Your task to perform on an android device: Empty the shopping cart on newegg. Image 0: 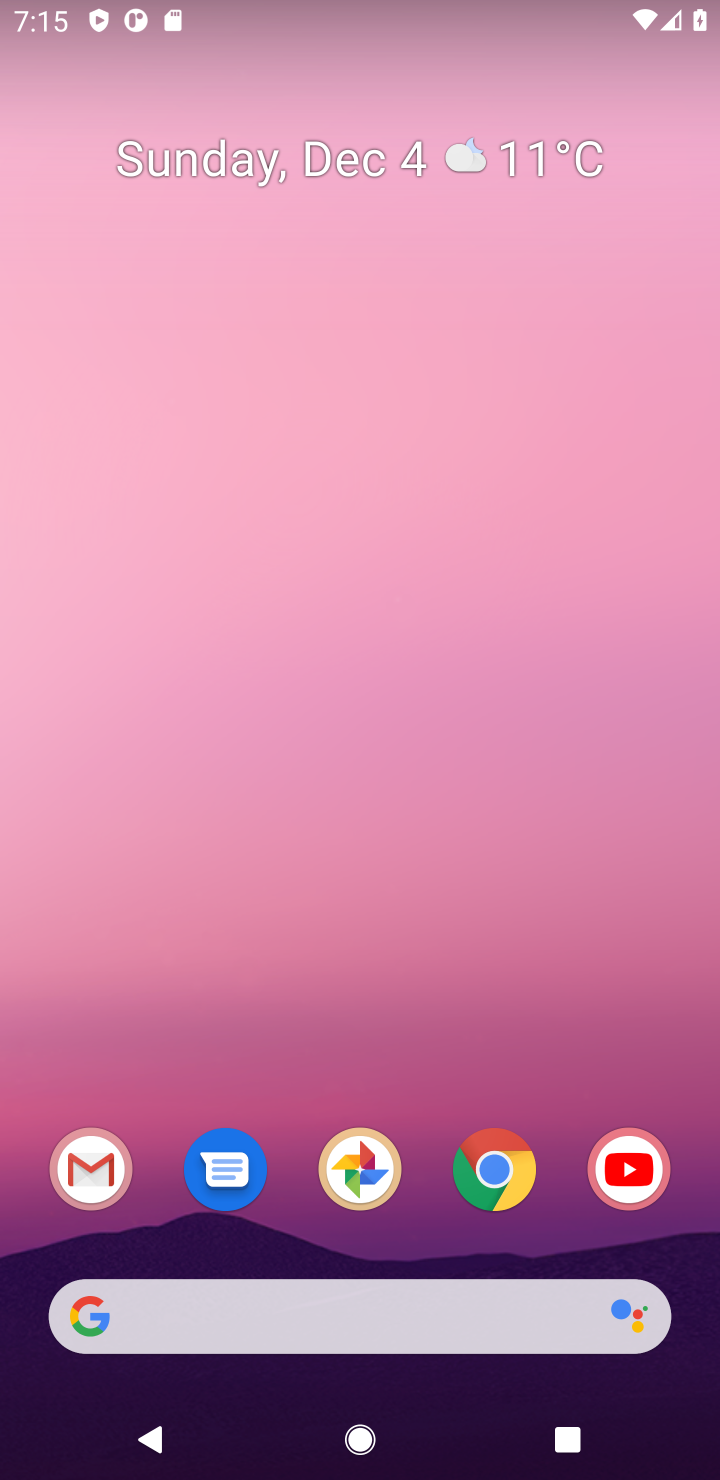
Step 0: drag from (482, 1387) to (661, 90)
Your task to perform on an android device: Empty the shopping cart on newegg. Image 1: 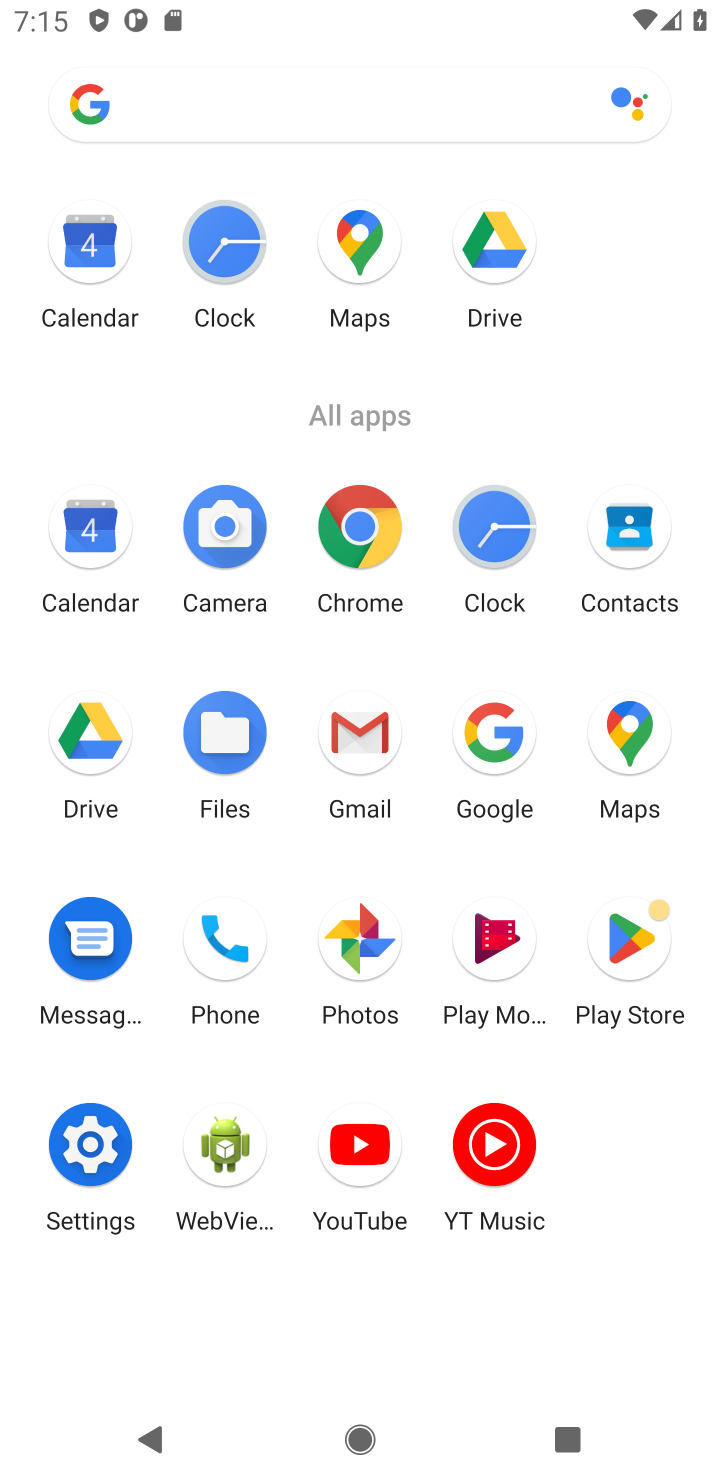
Step 1: click (371, 540)
Your task to perform on an android device: Empty the shopping cart on newegg. Image 2: 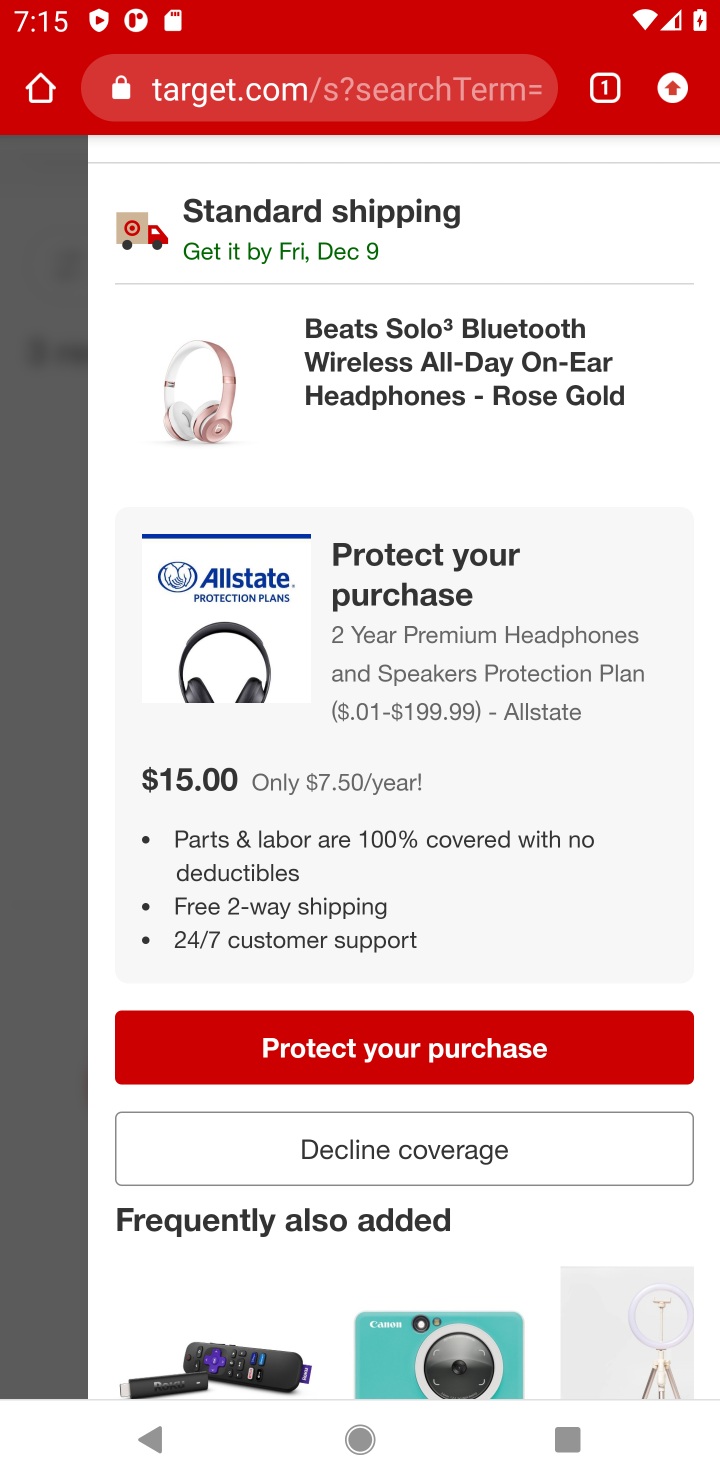
Step 2: click (368, 82)
Your task to perform on an android device: Empty the shopping cart on newegg. Image 3: 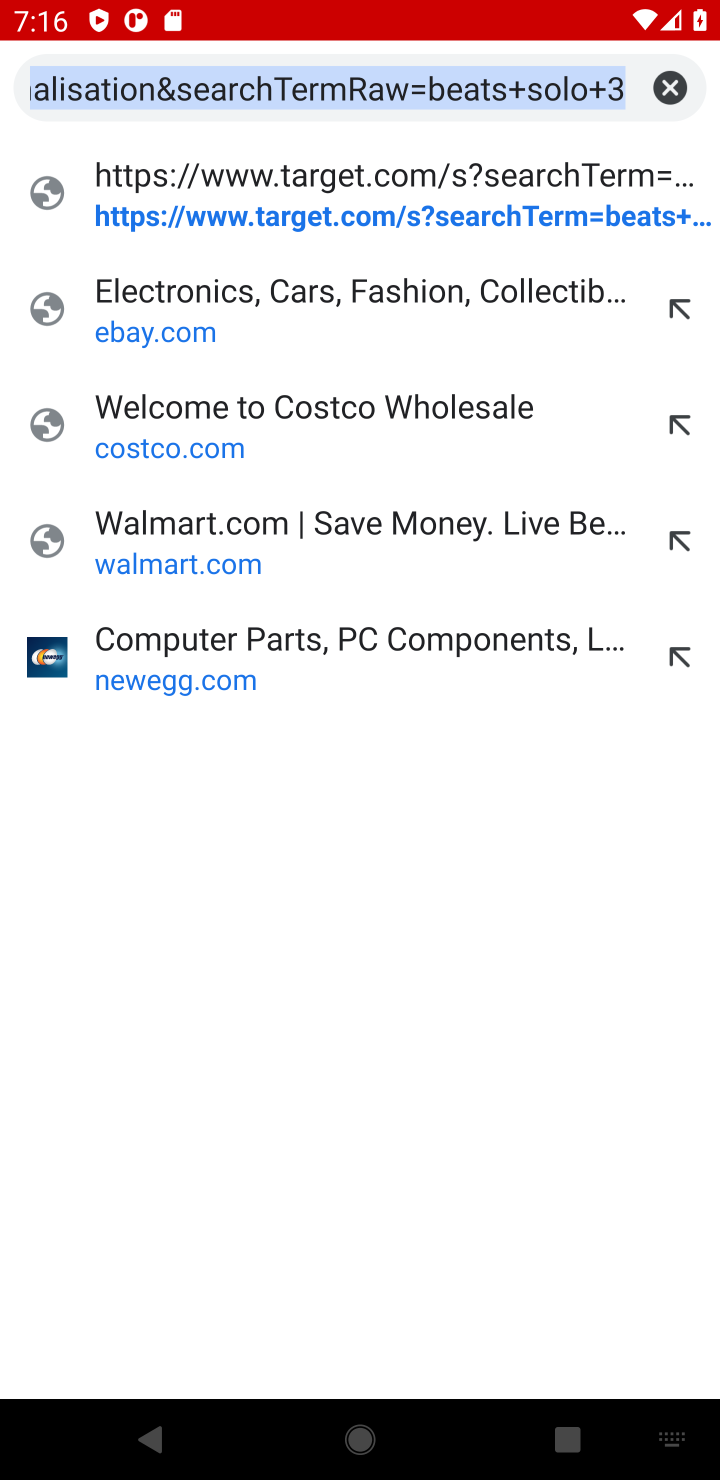
Step 3: click (667, 85)
Your task to perform on an android device: Empty the shopping cart on newegg. Image 4: 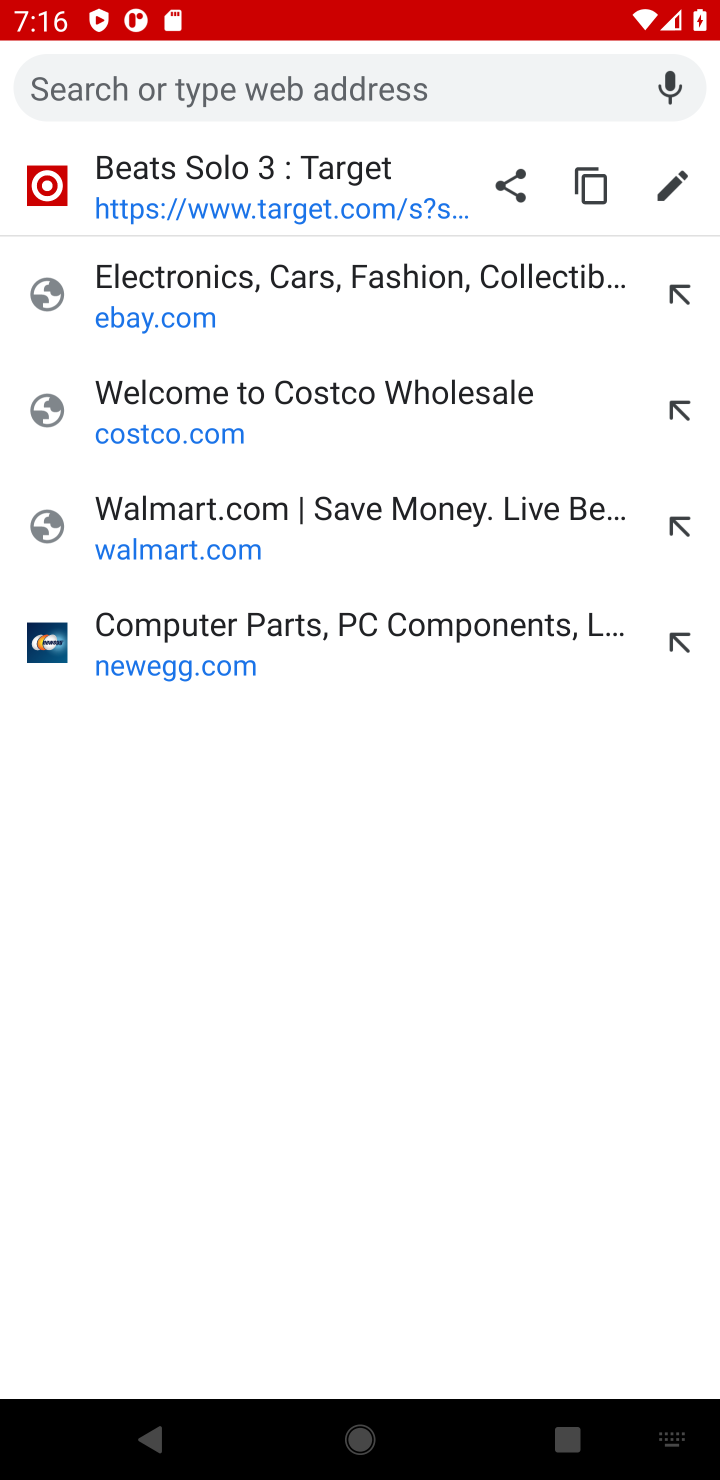
Step 4: type " newegg"
Your task to perform on an android device: Empty the shopping cart on newegg. Image 5: 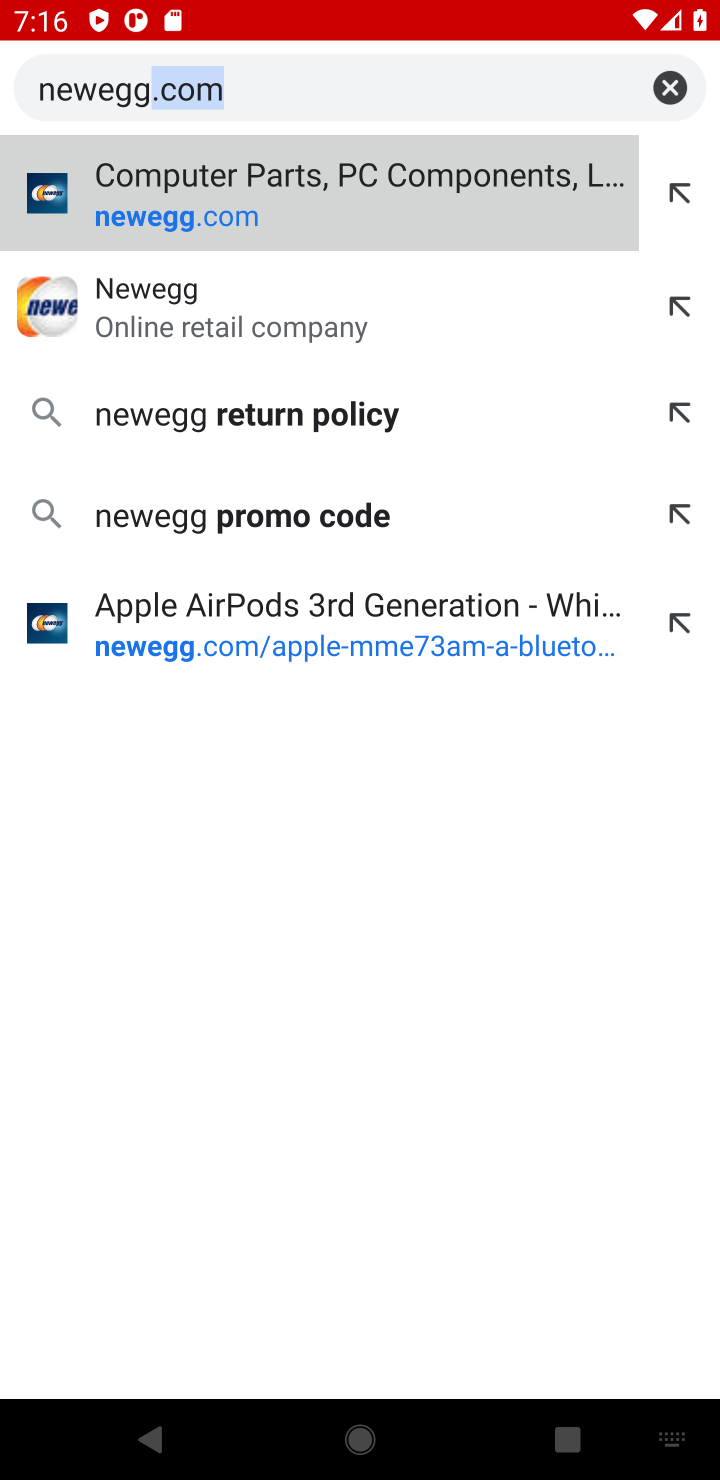
Step 5: type ""
Your task to perform on an android device: Empty the shopping cart on newegg. Image 6: 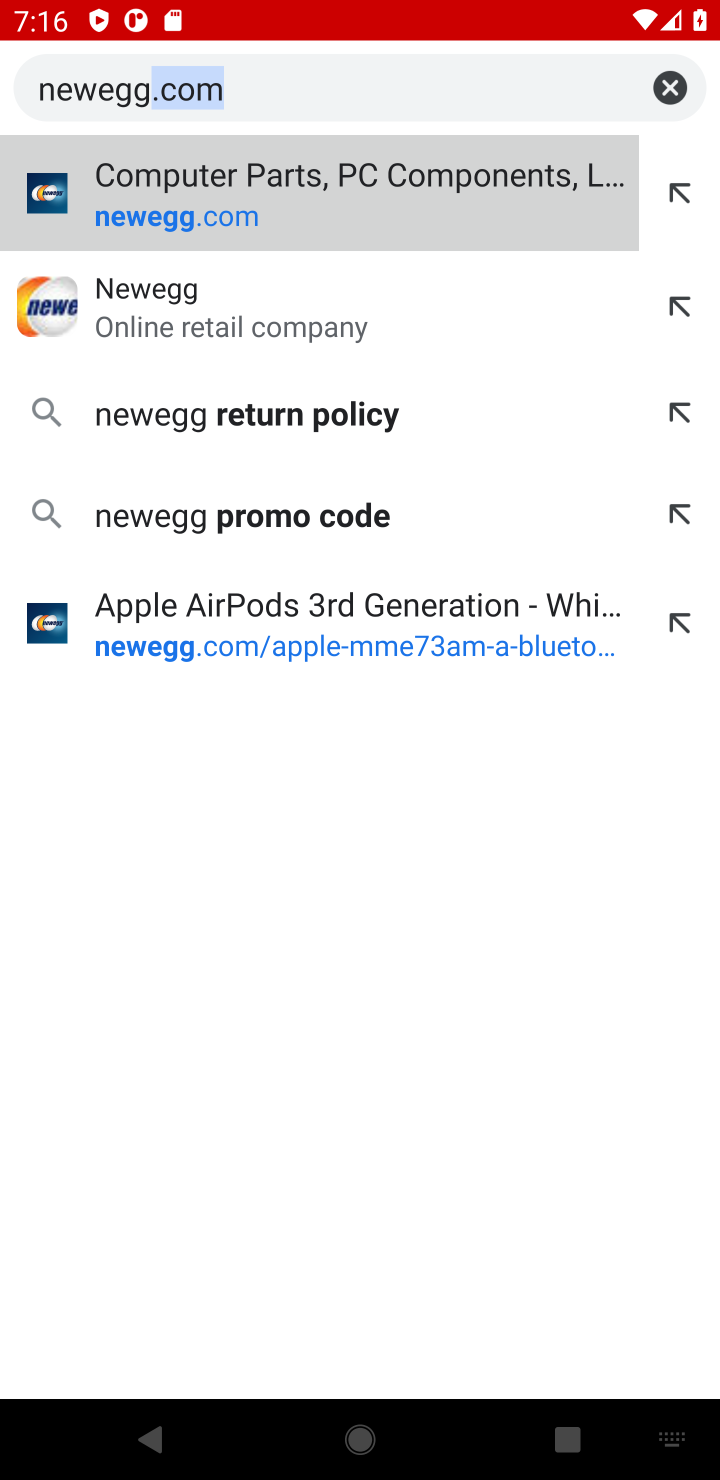
Step 6: click (207, 217)
Your task to perform on an android device: Empty the shopping cart on newegg. Image 7: 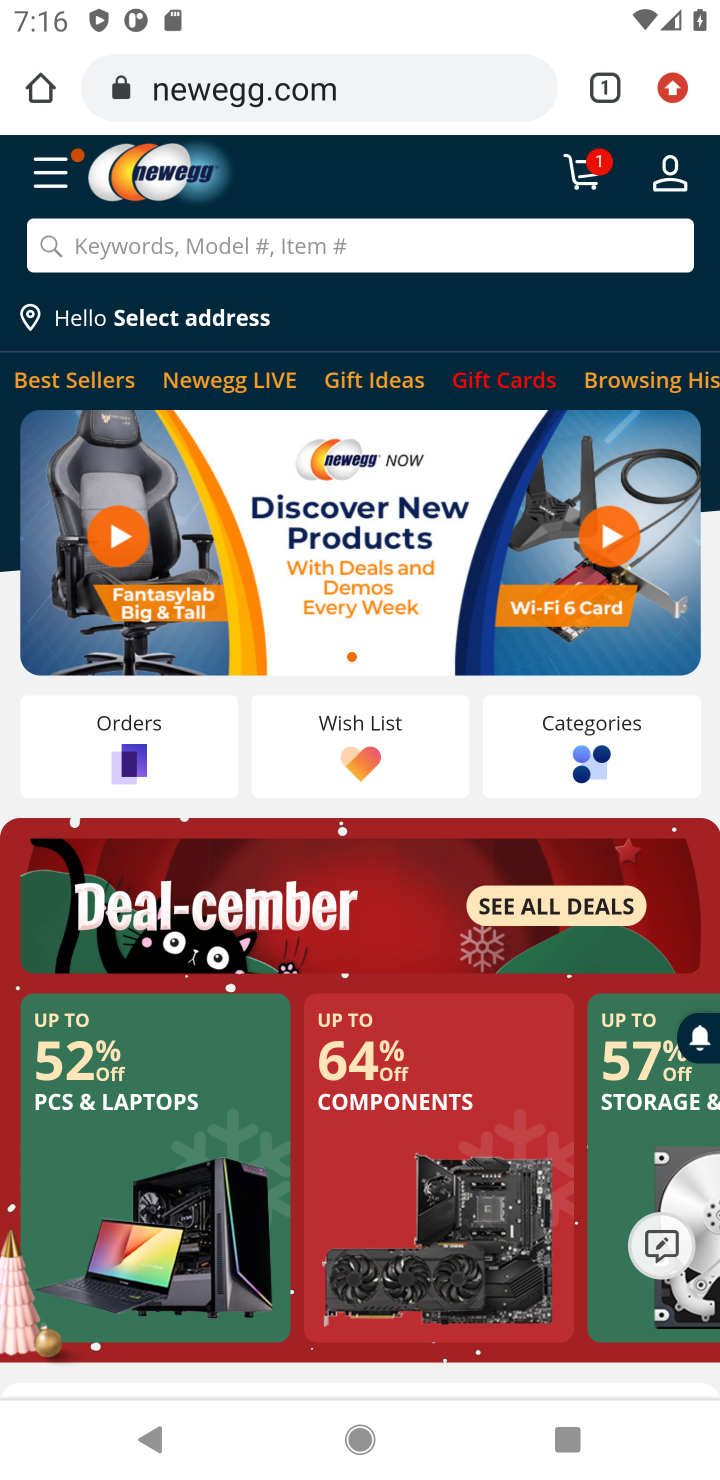
Step 7: click (584, 172)
Your task to perform on an android device: Empty the shopping cart on newegg. Image 8: 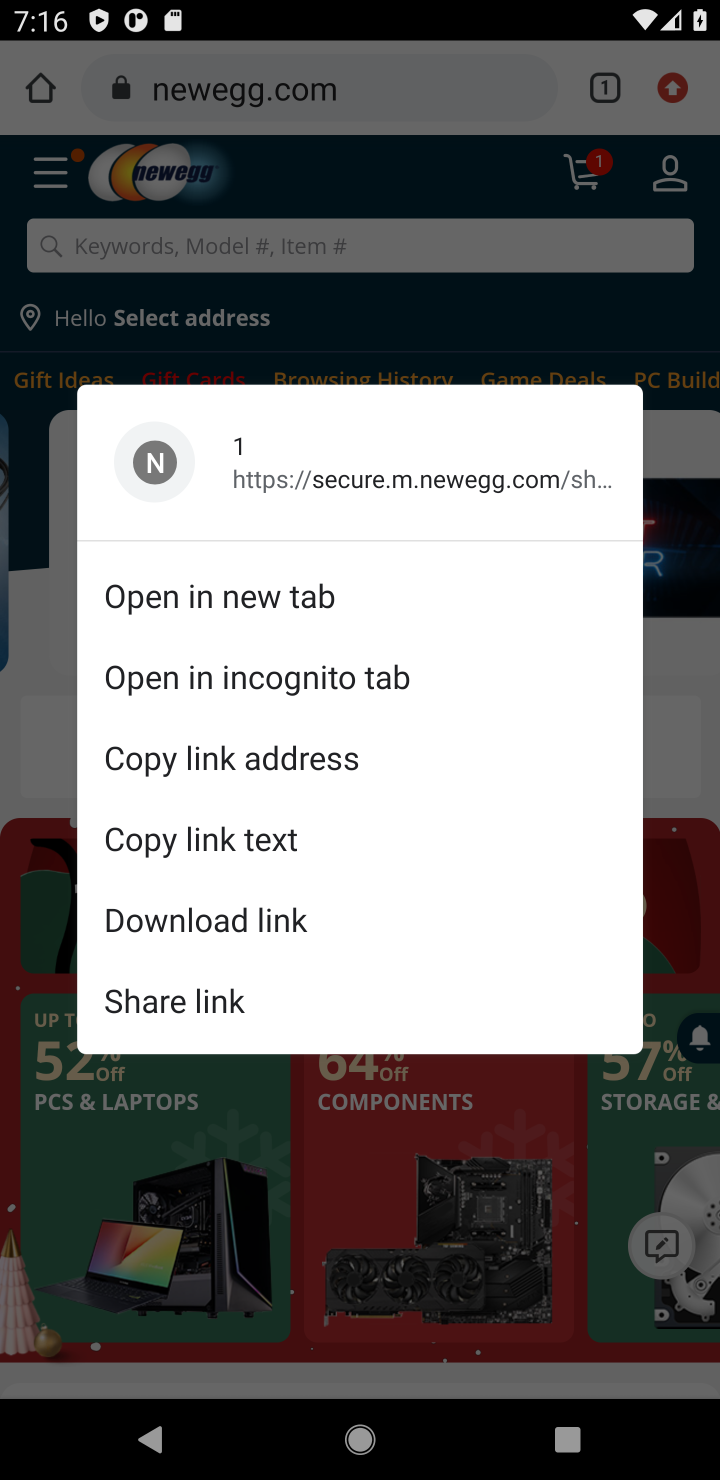
Step 8: click (594, 167)
Your task to perform on an android device: Empty the shopping cart on newegg. Image 9: 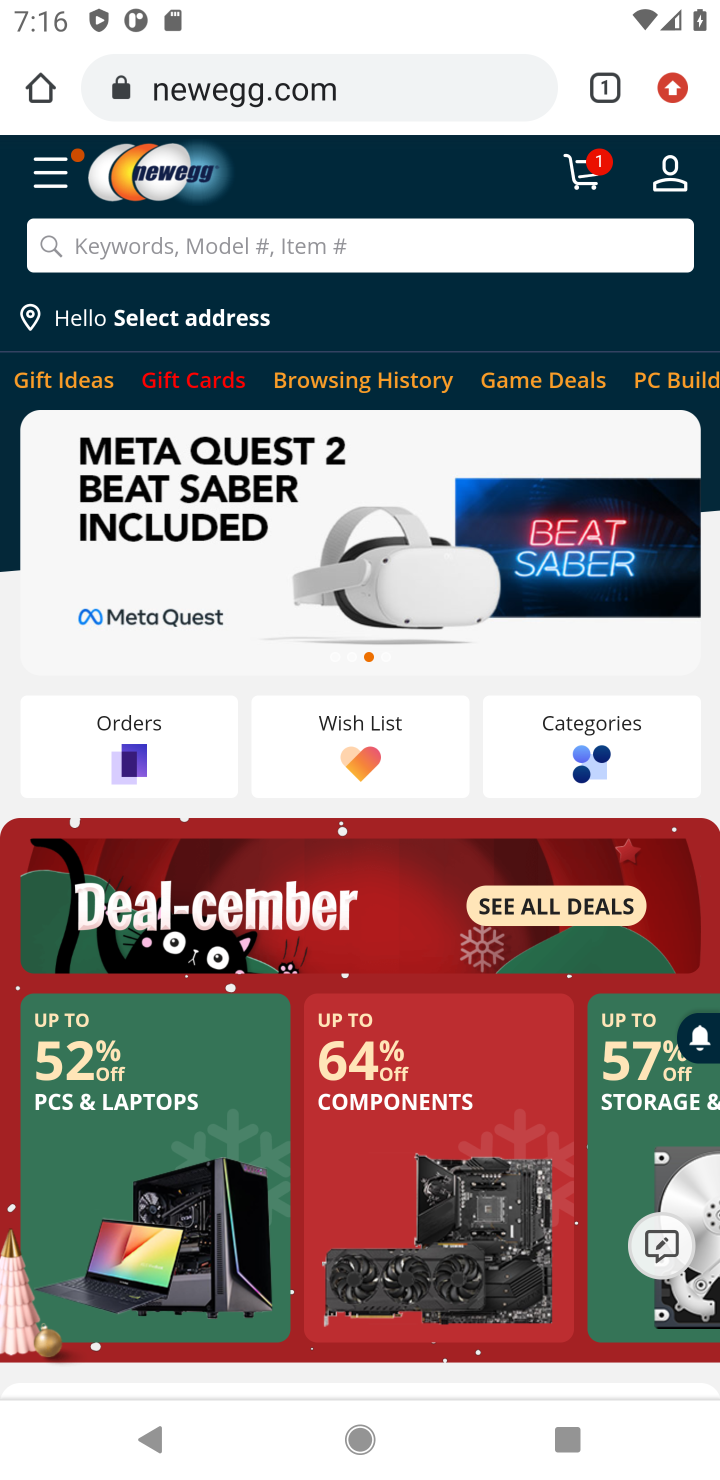
Step 9: click (594, 167)
Your task to perform on an android device: Empty the shopping cart on newegg. Image 10: 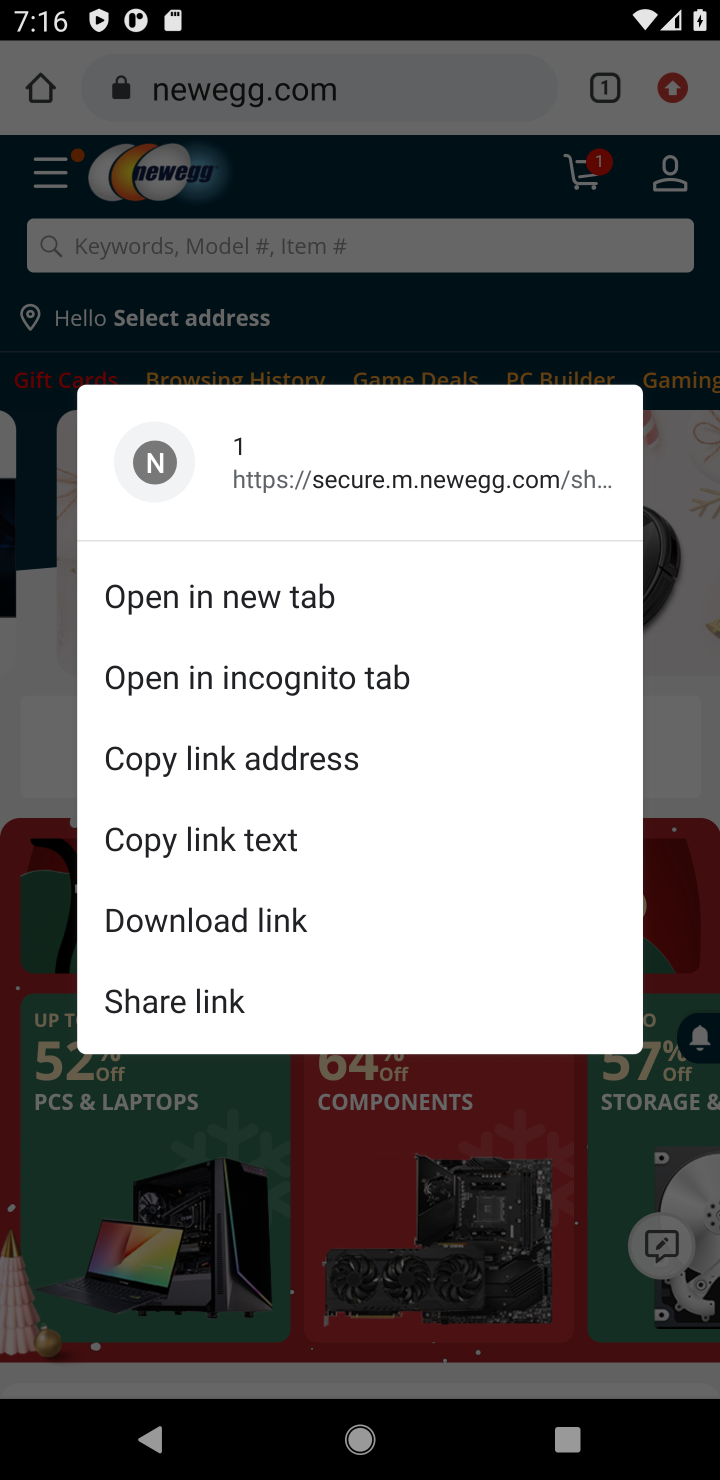
Step 10: click (228, 599)
Your task to perform on an android device: Empty the shopping cart on newegg. Image 11: 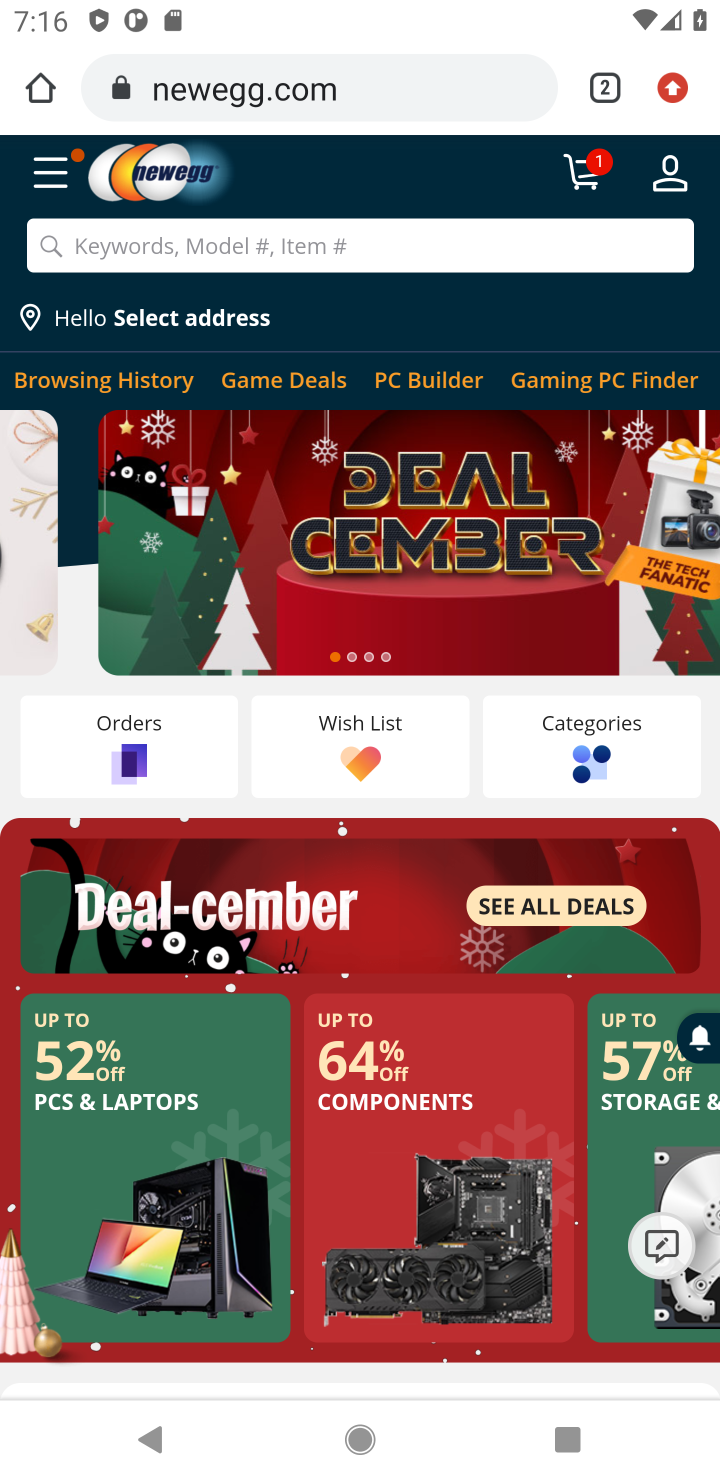
Step 11: click (597, 174)
Your task to perform on an android device: Empty the shopping cart on newegg. Image 12: 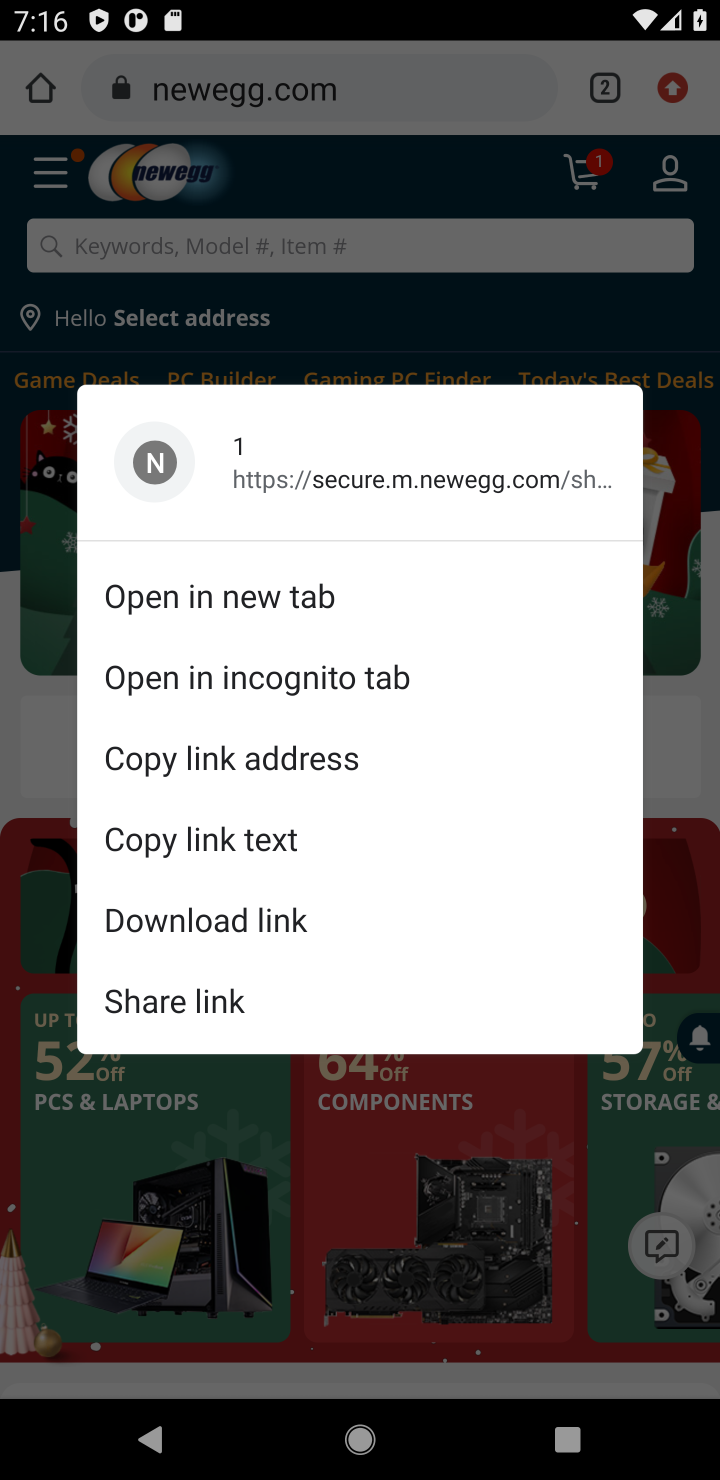
Step 12: click (597, 174)
Your task to perform on an android device: Empty the shopping cart on newegg. Image 13: 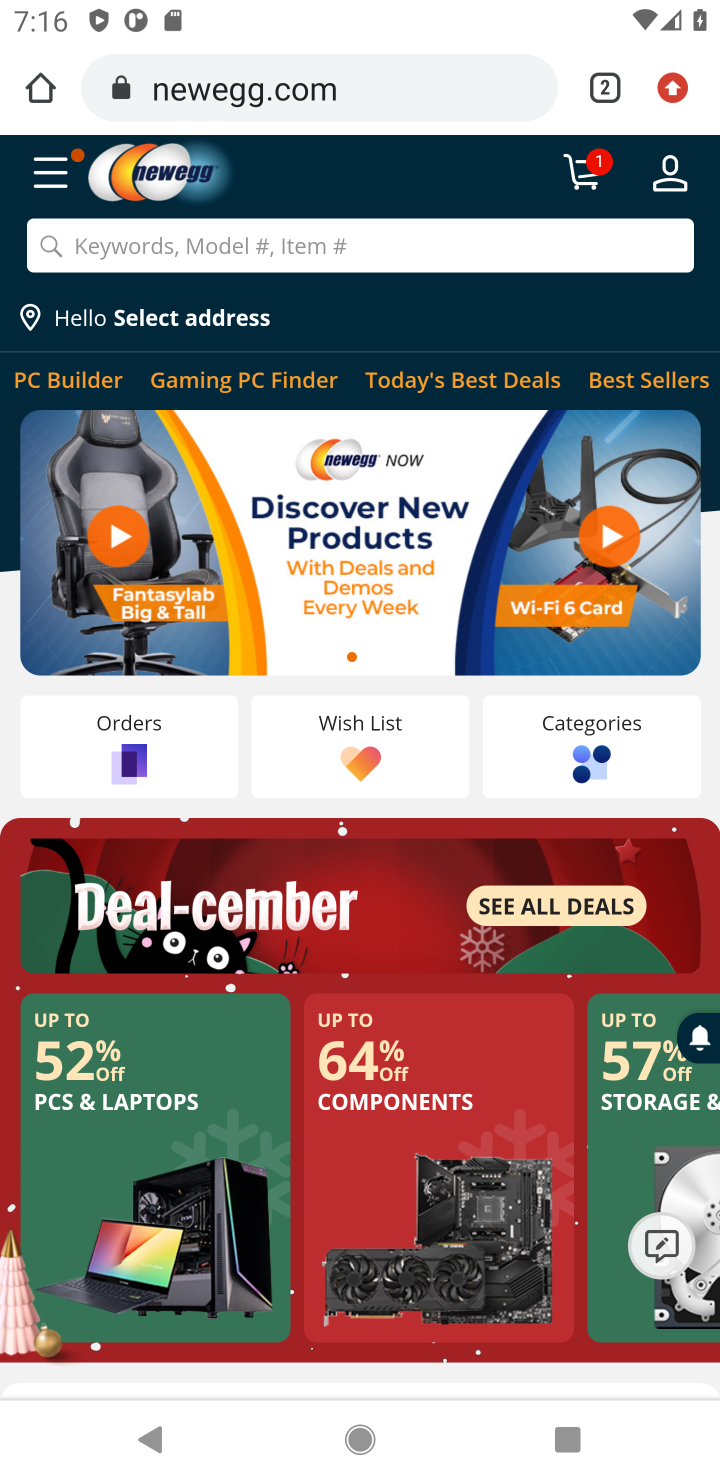
Step 13: click (599, 176)
Your task to perform on an android device: Empty the shopping cart on newegg. Image 14: 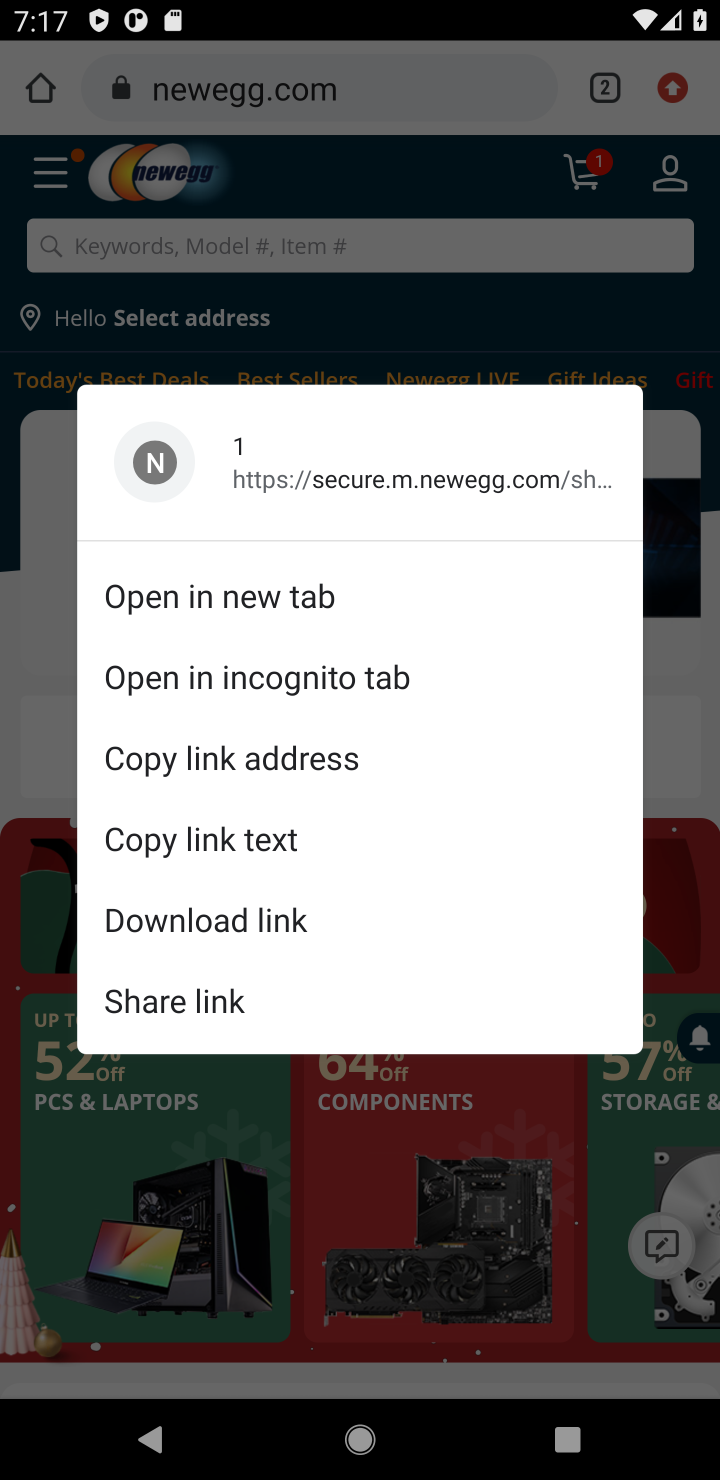
Step 14: click (215, 590)
Your task to perform on an android device: Empty the shopping cart on newegg. Image 15: 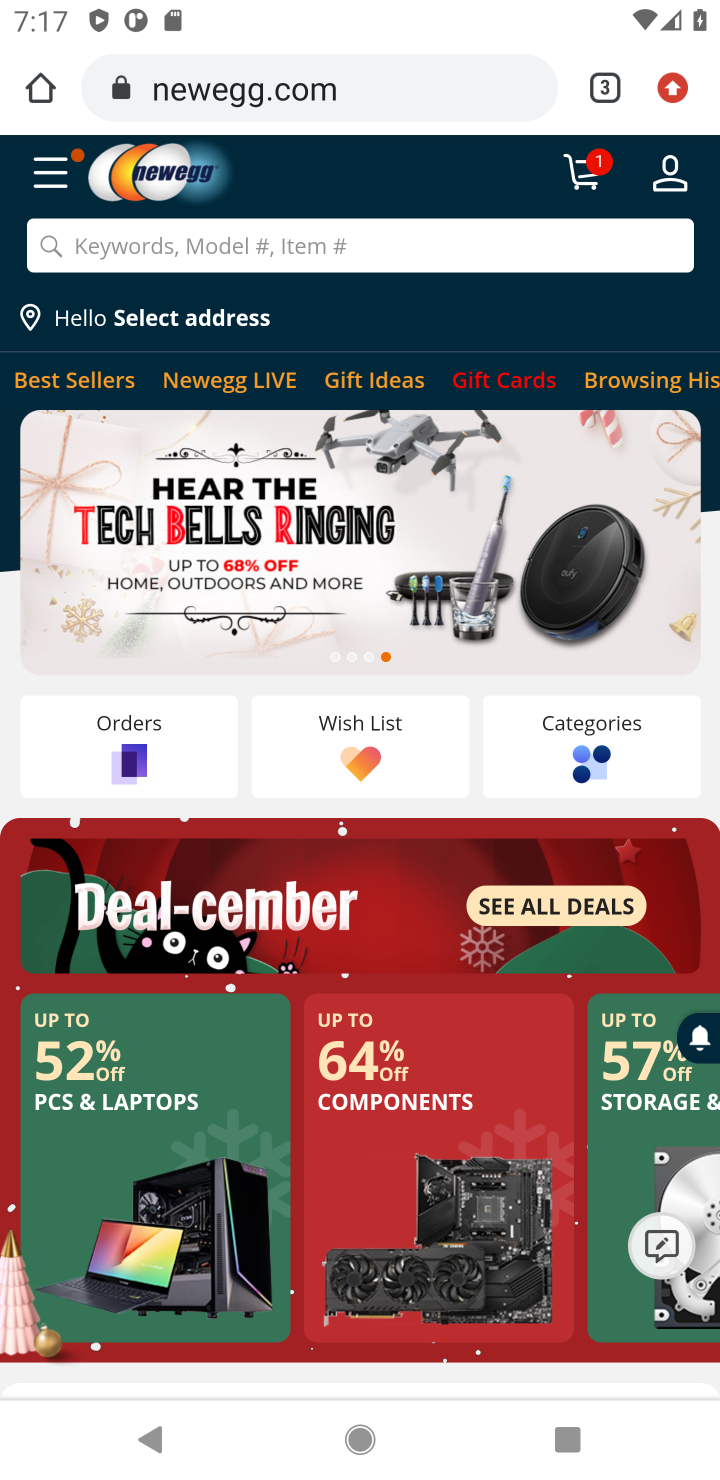
Step 15: click (606, 85)
Your task to perform on an android device: Empty the shopping cart on newegg. Image 16: 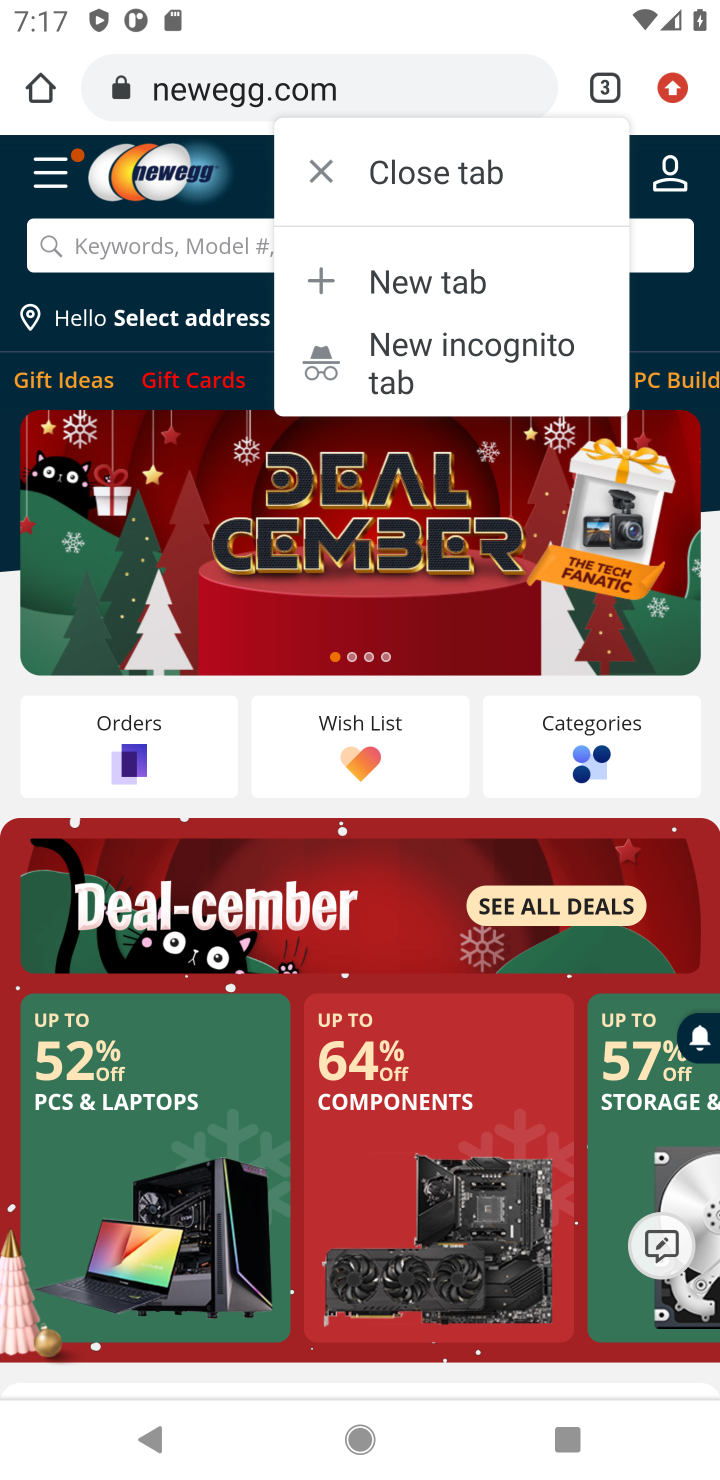
Step 16: click (614, 85)
Your task to perform on an android device: Empty the shopping cart on newegg. Image 17: 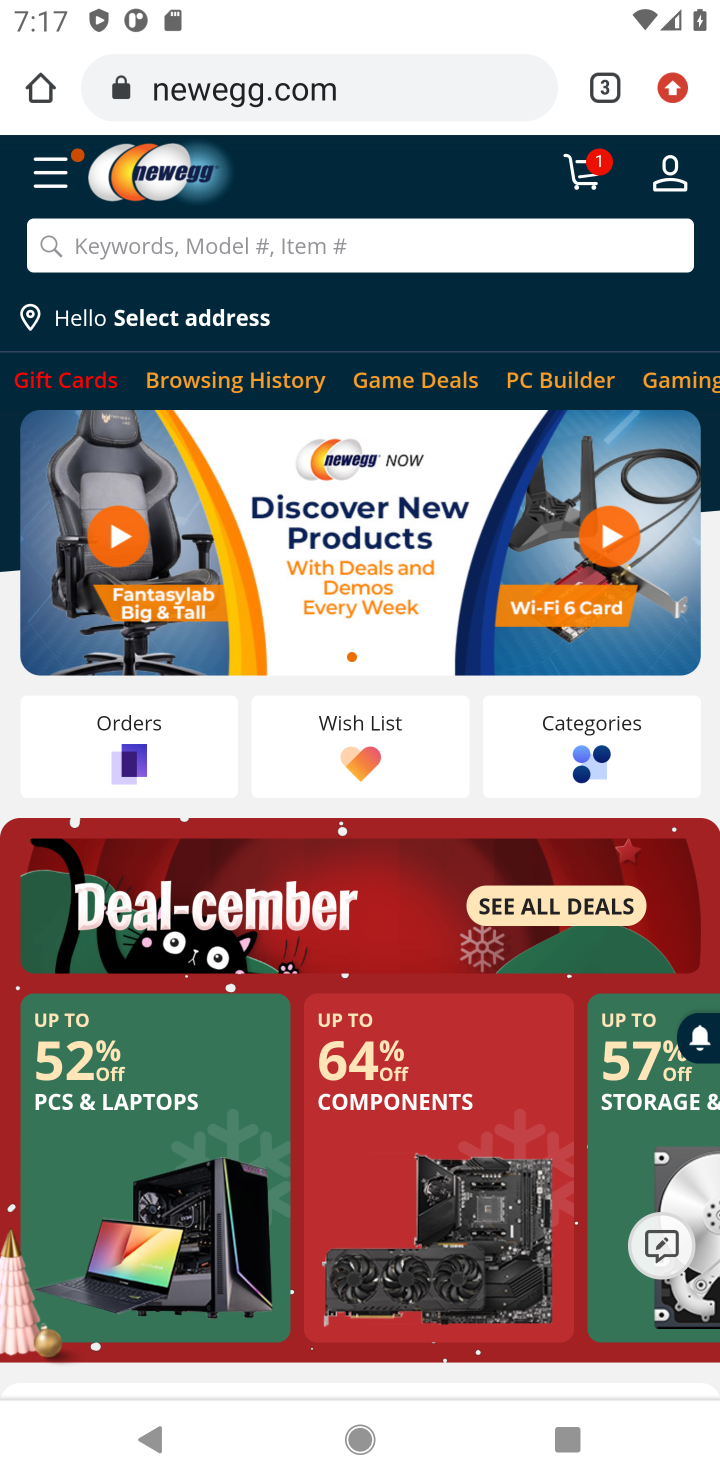
Step 17: click (606, 85)
Your task to perform on an android device: Empty the shopping cart on newegg. Image 18: 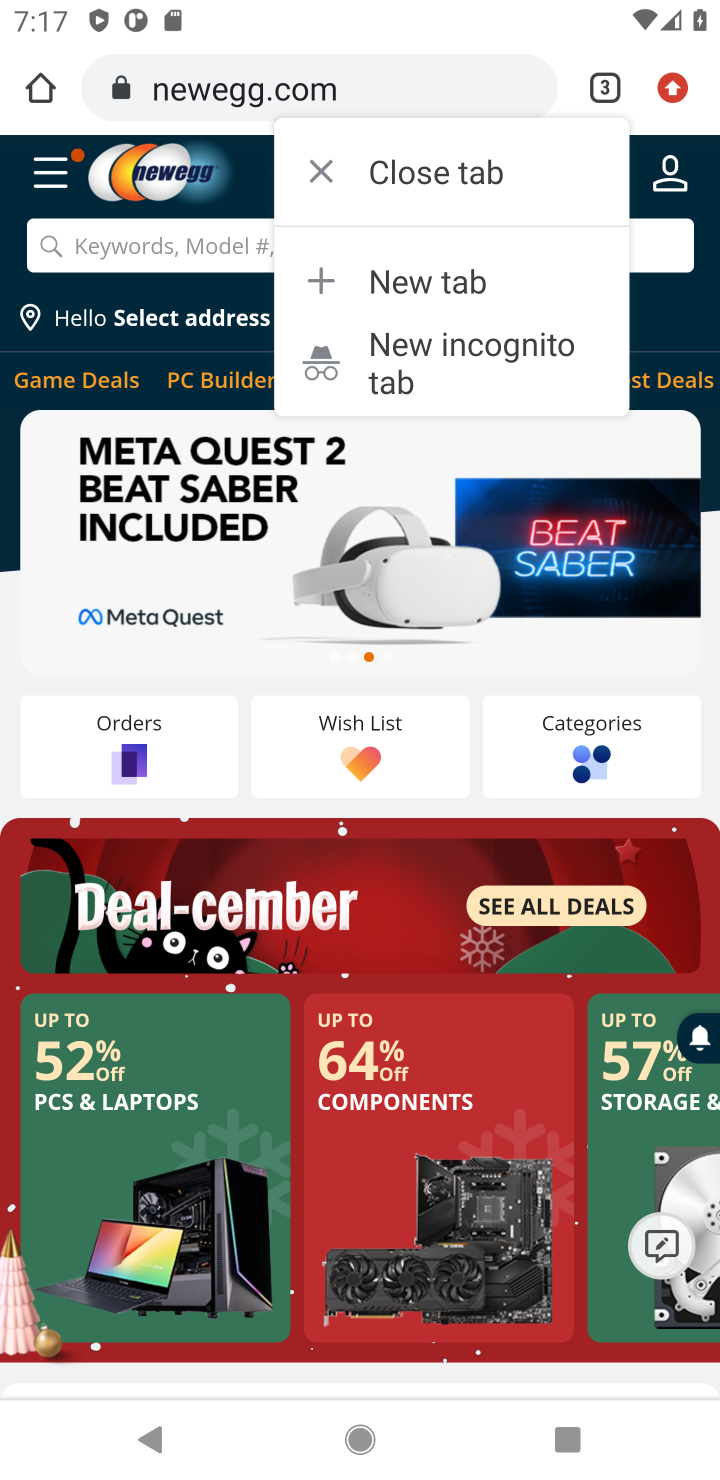
Step 18: click (632, 336)
Your task to perform on an android device: Empty the shopping cart on newegg. Image 19: 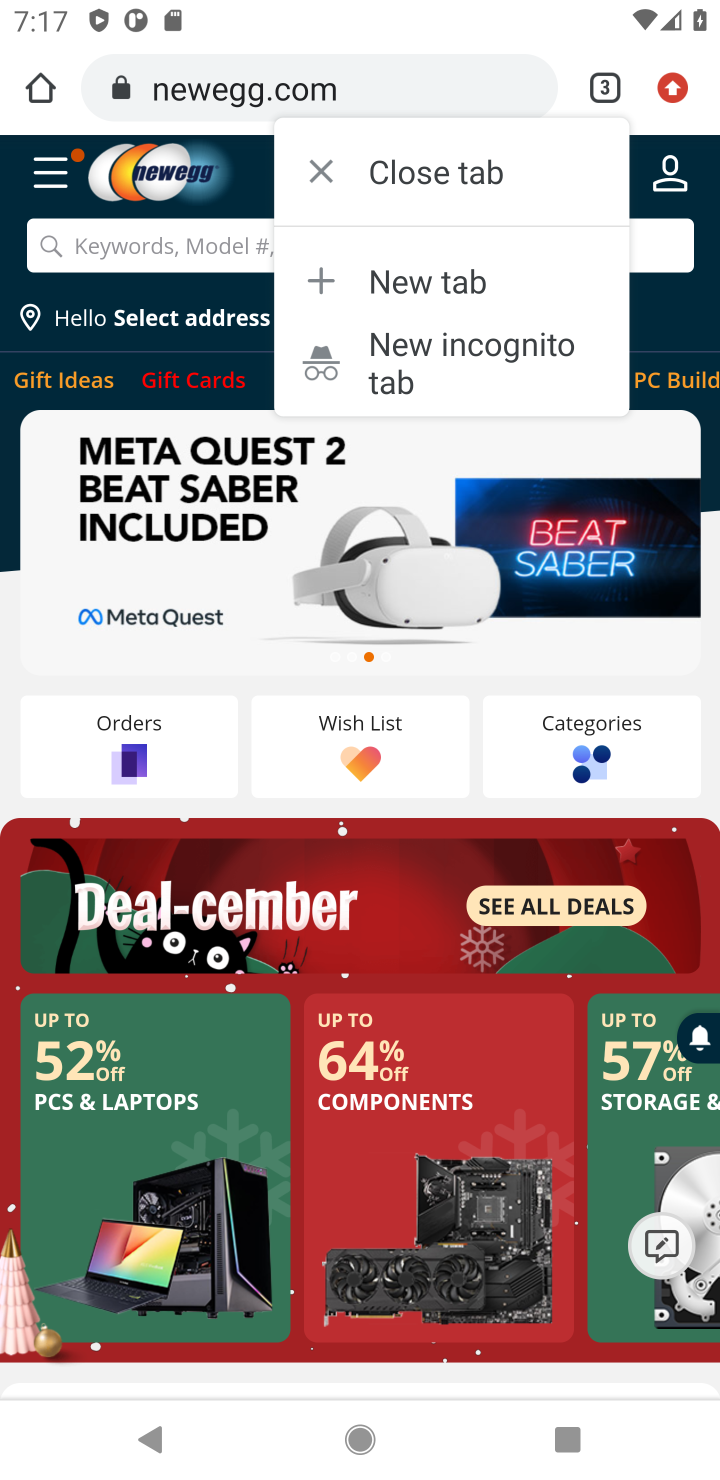
Step 19: drag from (320, 950) to (351, 527)
Your task to perform on an android device: Empty the shopping cart on newegg. Image 20: 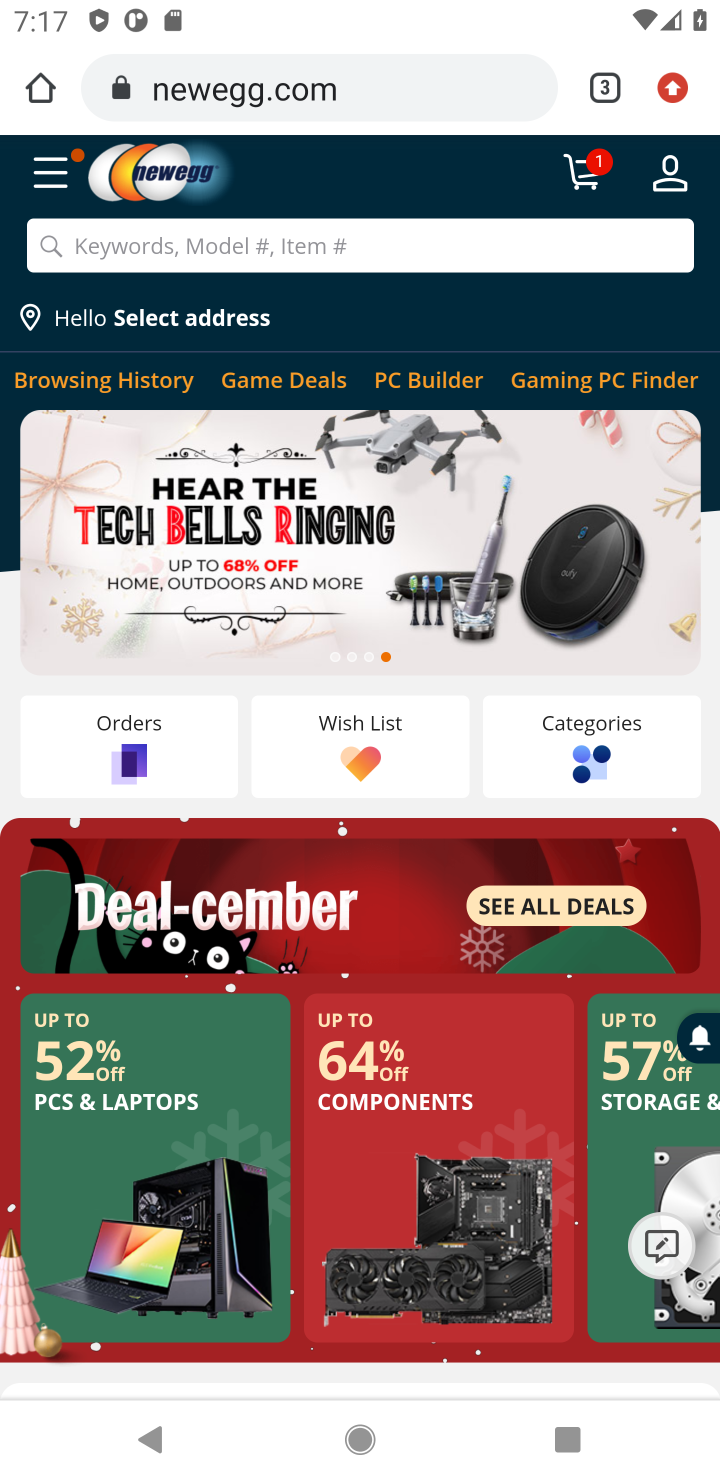
Step 20: drag from (469, 883) to (484, 509)
Your task to perform on an android device: Empty the shopping cart on newegg. Image 21: 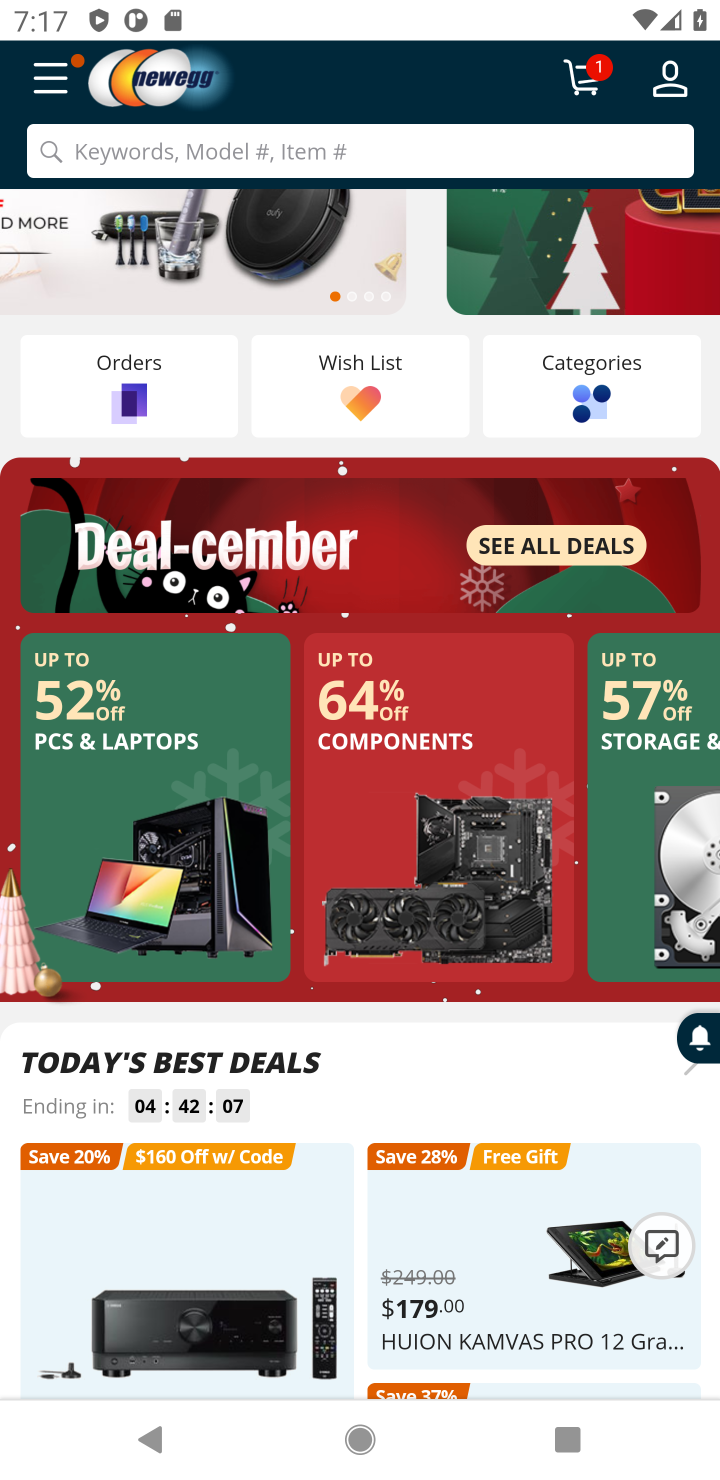
Step 21: drag from (341, 1314) to (402, 772)
Your task to perform on an android device: Empty the shopping cart on newegg. Image 22: 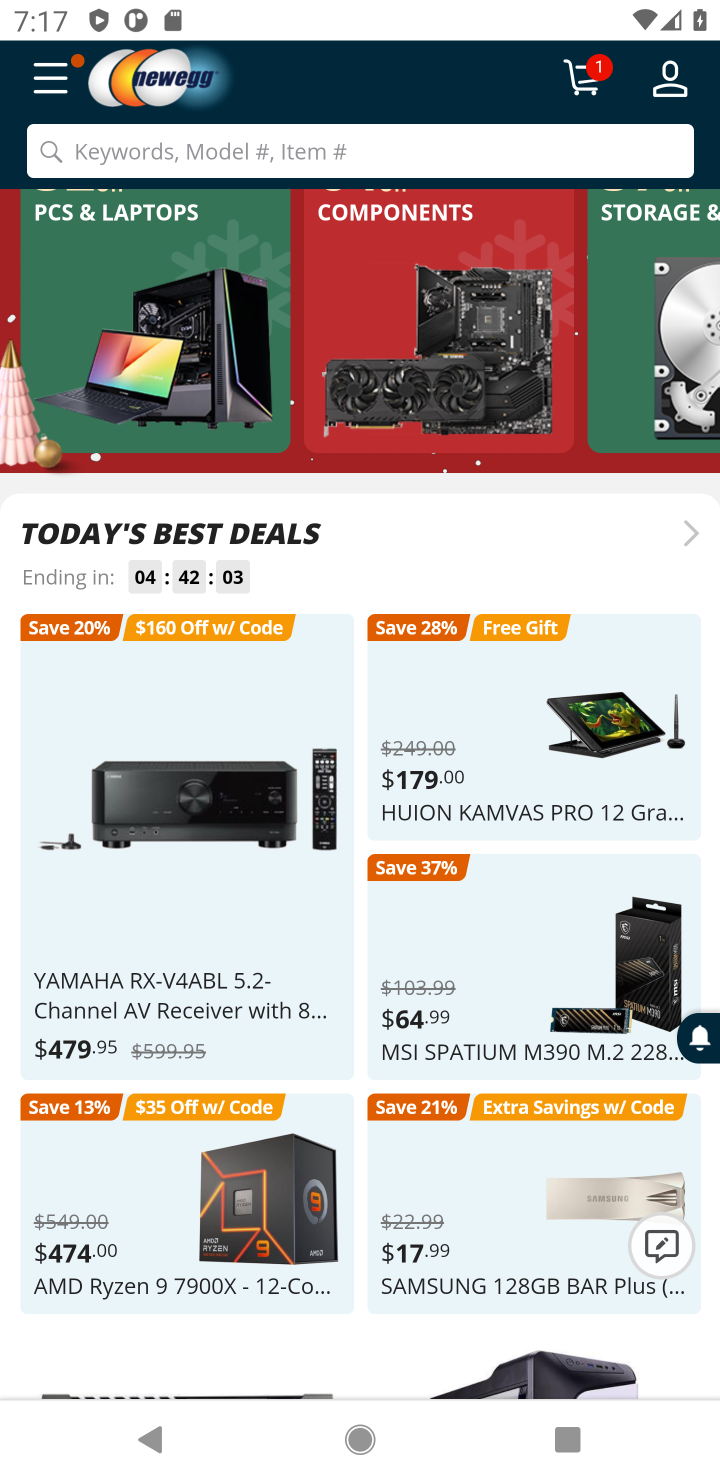
Step 22: click (585, 66)
Your task to perform on an android device: Empty the shopping cart on newegg. Image 23: 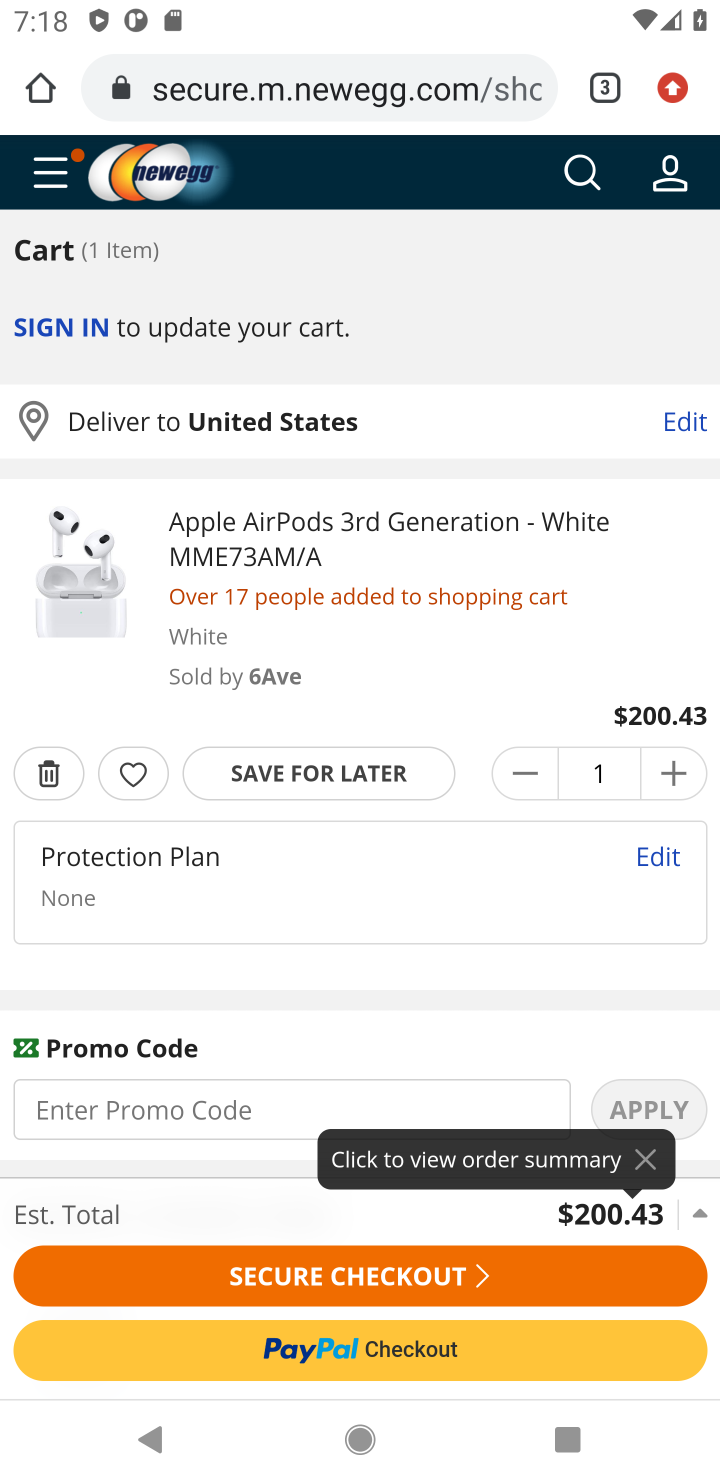
Step 23: click (52, 763)
Your task to perform on an android device: Empty the shopping cart on newegg. Image 24: 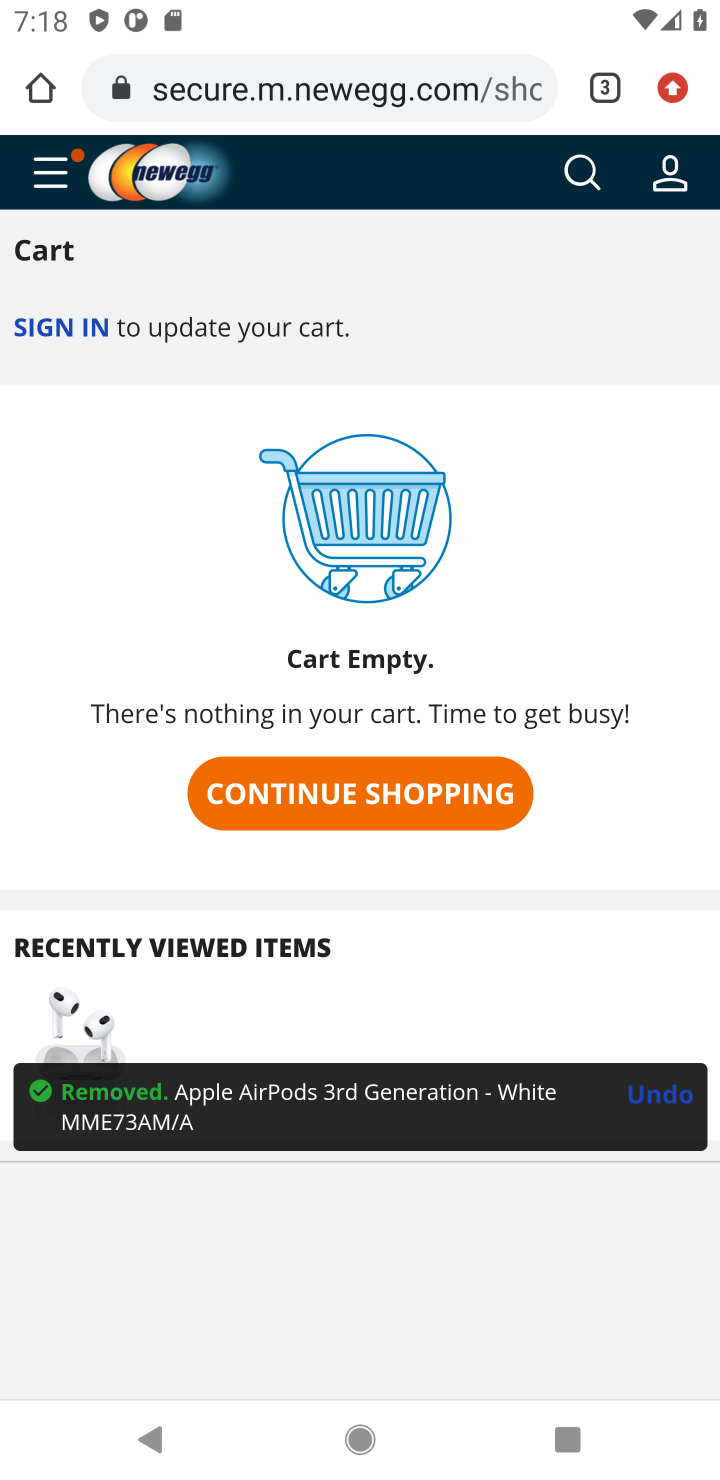
Step 24: task complete